Your task to perform on an android device: Turn off the flashlight Image 0: 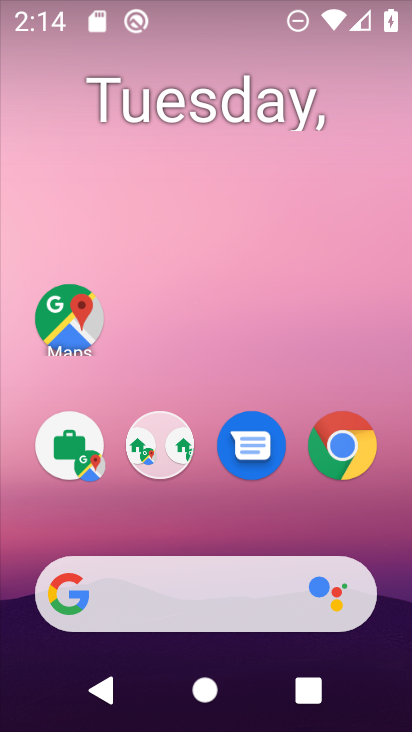
Step 0: drag from (245, 526) to (308, 120)
Your task to perform on an android device: Turn off the flashlight Image 1: 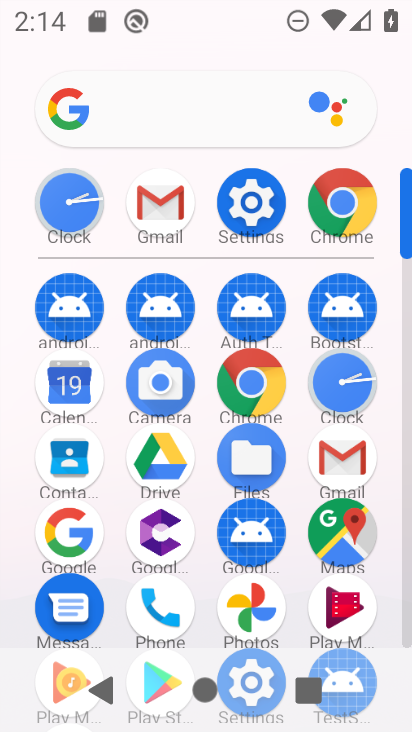
Step 1: click (248, 199)
Your task to perform on an android device: Turn off the flashlight Image 2: 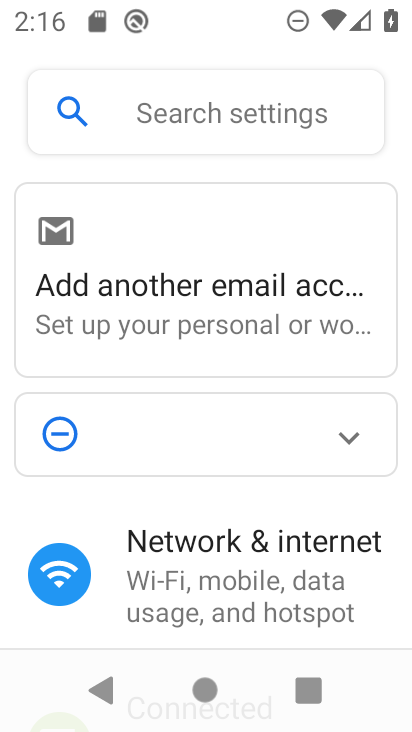
Step 2: task complete